Your task to perform on an android device: change the clock display to digital Image 0: 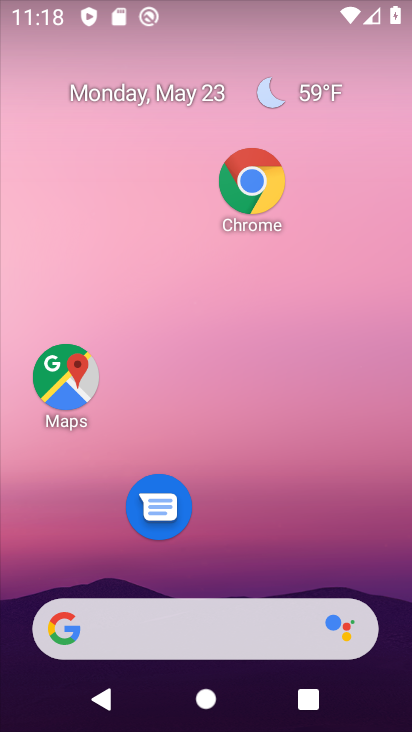
Step 0: drag from (279, 490) to (344, 195)
Your task to perform on an android device: change the clock display to digital Image 1: 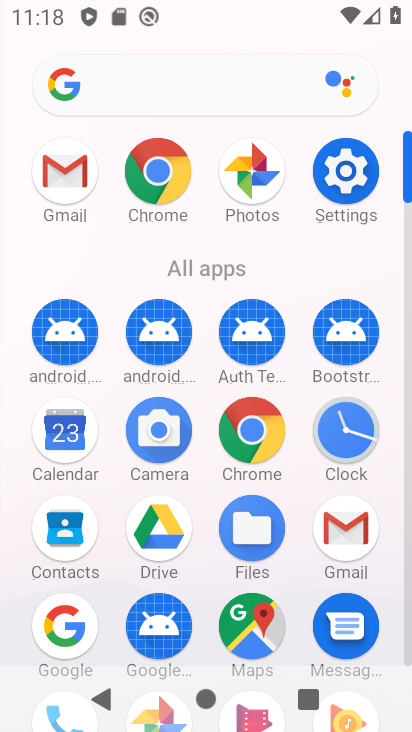
Step 1: click (348, 427)
Your task to perform on an android device: change the clock display to digital Image 2: 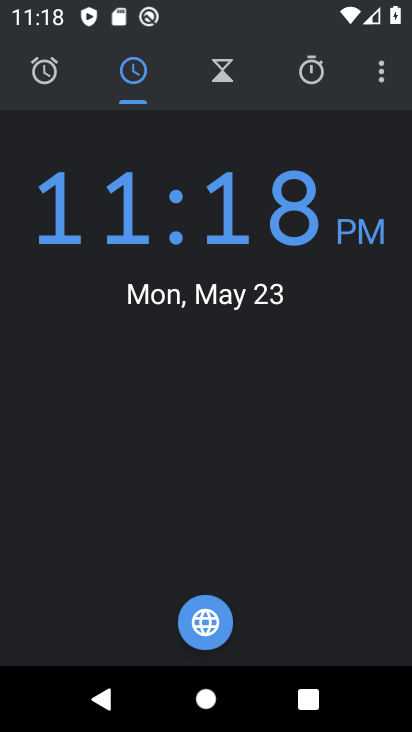
Step 2: click (370, 61)
Your task to perform on an android device: change the clock display to digital Image 3: 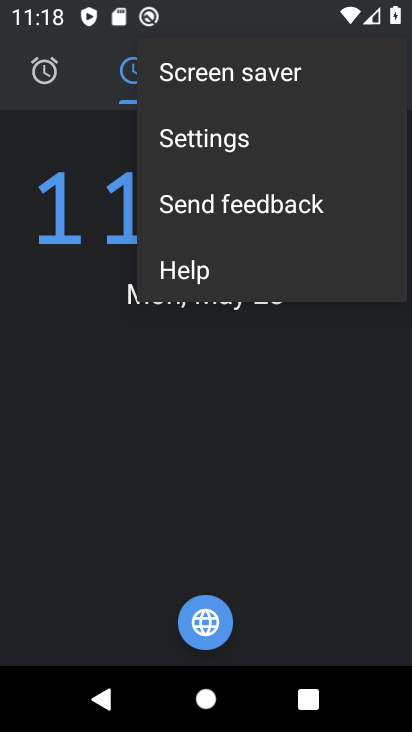
Step 3: click (215, 132)
Your task to perform on an android device: change the clock display to digital Image 4: 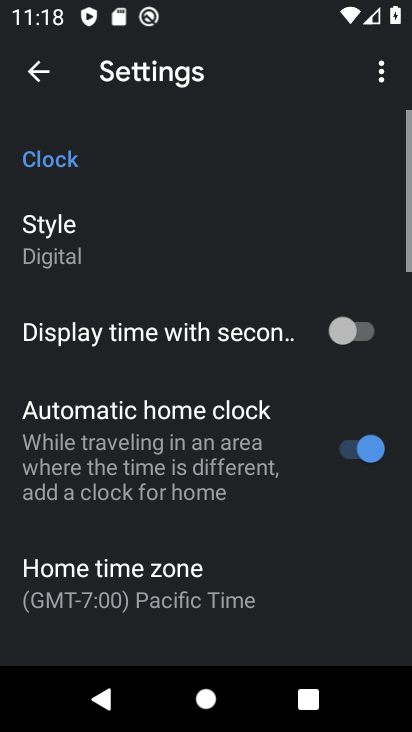
Step 4: click (104, 230)
Your task to perform on an android device: change the clock display to digital Image 5: 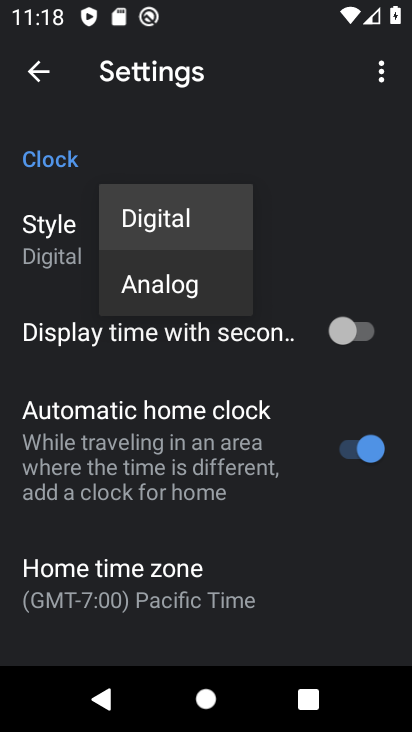
Step 5: click (159, 269)
Your task to perform on an android device: change the clock display to digital Image 6: 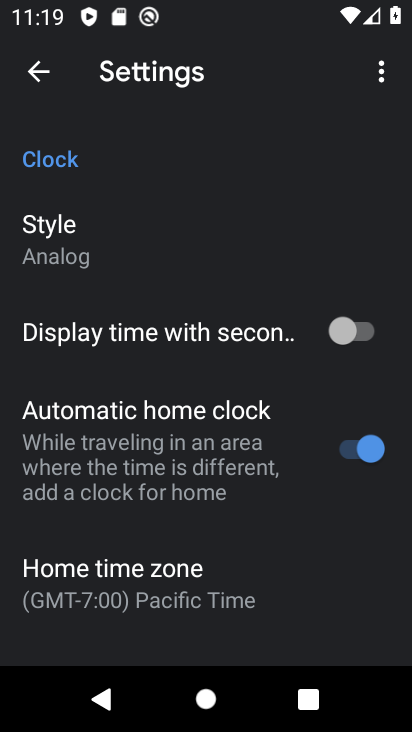
Step 6: task complete